Your task to perform on an android device: Open Youtube and go to "Your channel" Image 0: 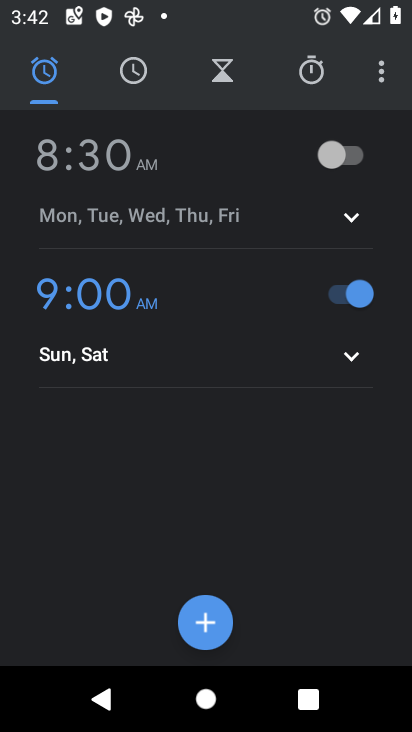
Step 0: press home button
Your task to perform on an android device: Open Youtube and go to "Your channel" Image 1: 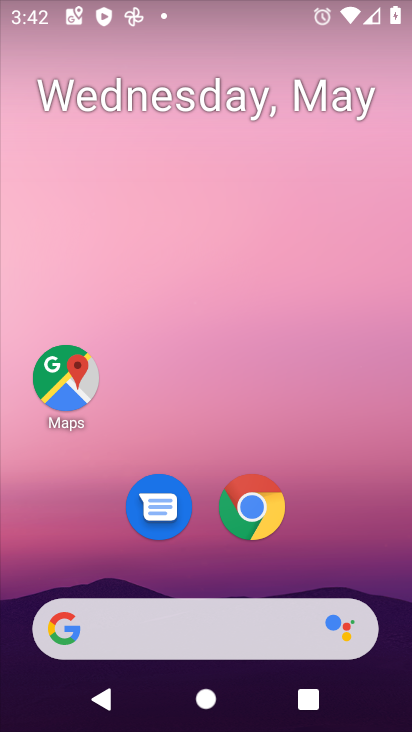
Step 1: drag from (318, 546) to (328, 487)
Your task to perform on an android device: Open Youtube and go to "Your channel" Image 2: 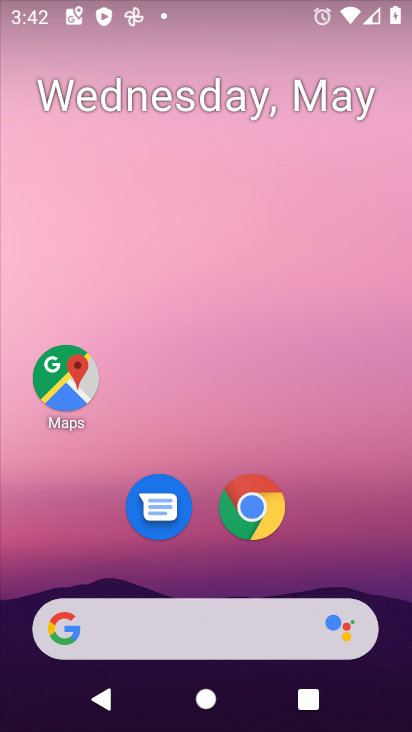
Step 2: drag from (331, 539) to (338, 208)
Your task to perform on an android device: Open Youtube and go to "Your channel" Image 3: 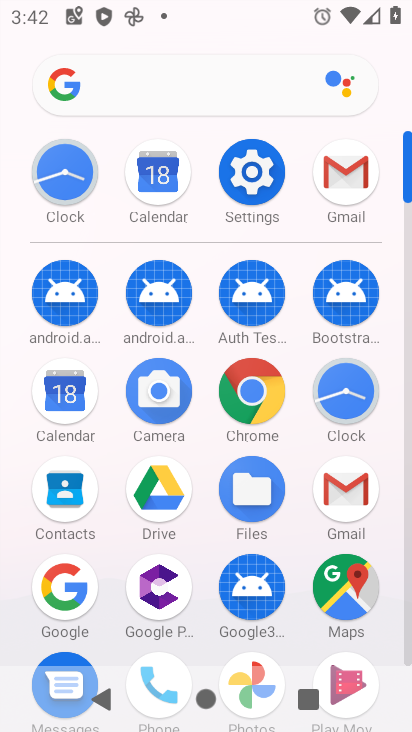
Step 3: drag from (308, 616) to (311, 393)
Your task to perform on an android device: Open Youtube and go to "Your channel" Image 4: 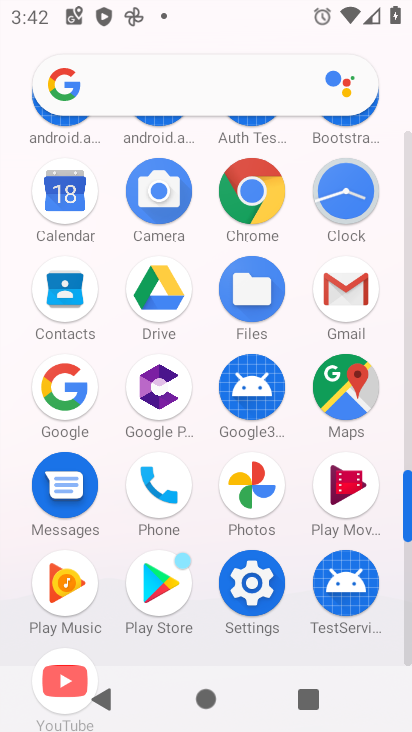
Step 4: drag from (205, 644) to (186, 350)
Your task to perform on an android device: Open Youtube and go to "Your channel" Image 5: 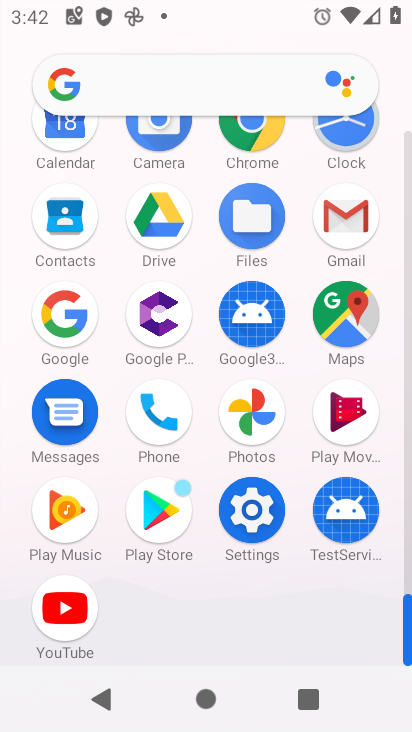
Step 5: click (67, 630)
Your task to perform on an android device: Open Youtube and go to "Your channel" Image 6: 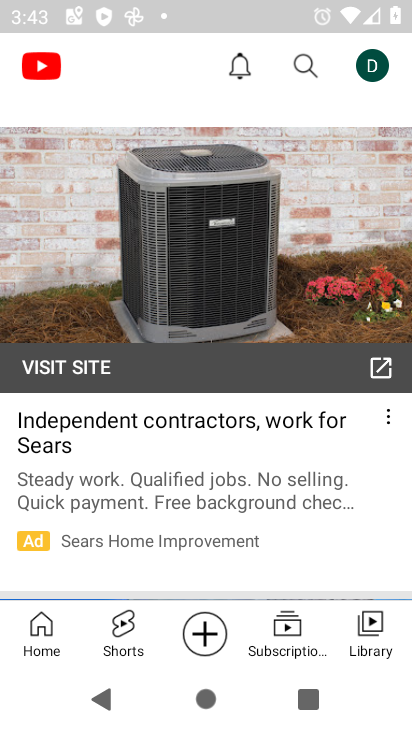
Step 6: click (358, 59)
Your task to perform on an android device: Open Youtube and go to "Your channel" Image 7: 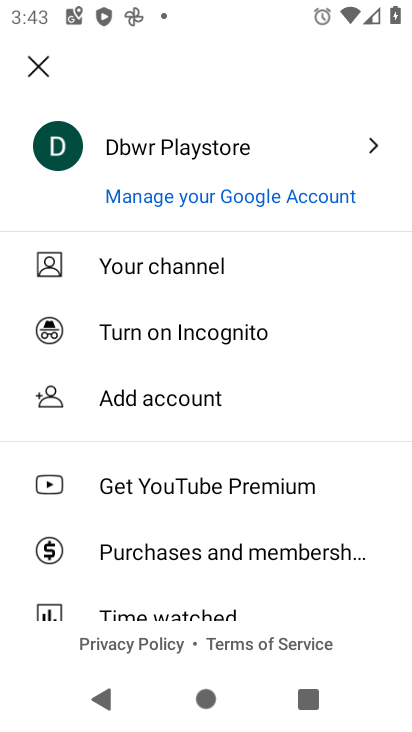
Step 7: click (226, 284)
Your task to perform on an android device: Open Youtube and go to "Your channel" Image 8: 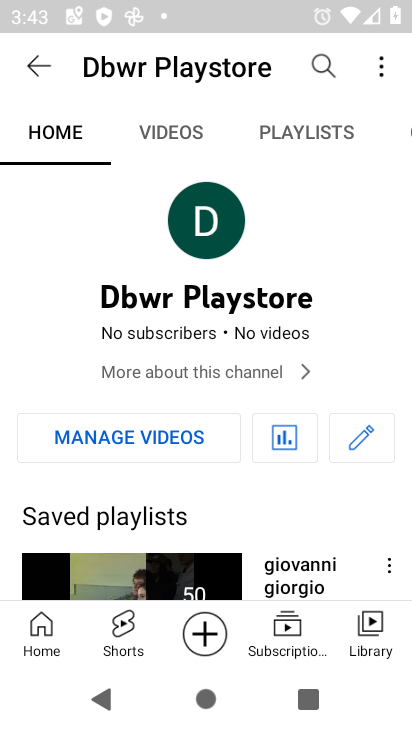
Step 8: task complete